Your task to perform on an android device: Open the phone app and click the voicemail tab. Image 0: 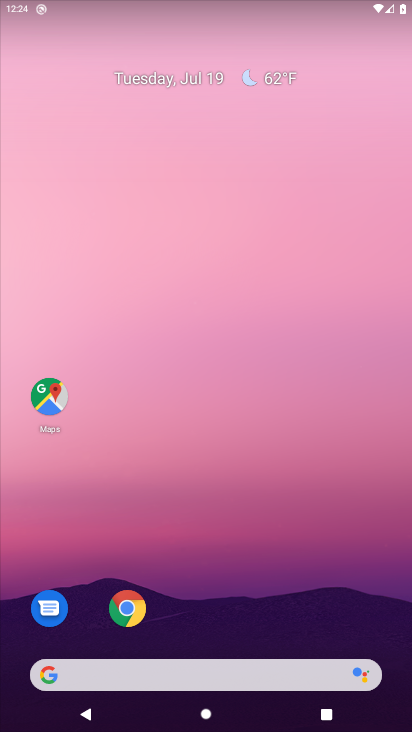
Step 0: drag from (208, 644) to (237, 1)
Your task to perform on an android device: Open the phone app and click the voicemail tab. Image 1: 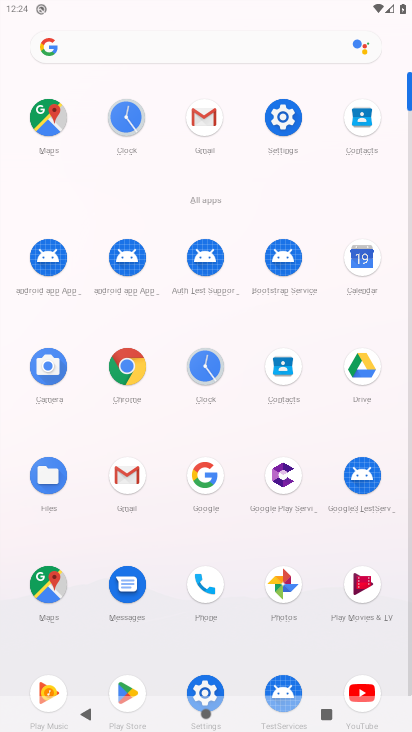
Step 1: click (203, 577)
Your task to perform on an android device: Open the phone app and click the voicemail tab. Image 2: 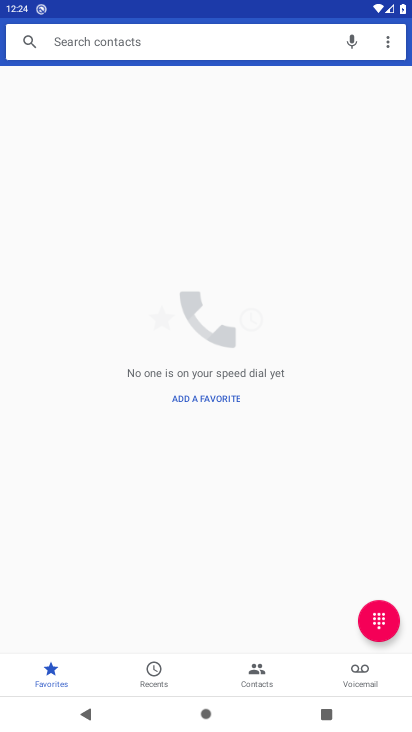
Step 2: click (358, 670)
Your task to perform on an android device: Open the phone app and click the voicemail tab. Image 3: 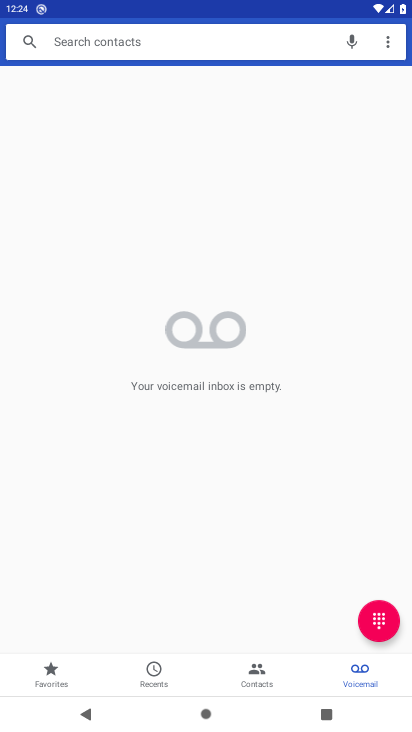
Step 3: task complete